Your task to perform on an android device: Open wifi settings Image 0: 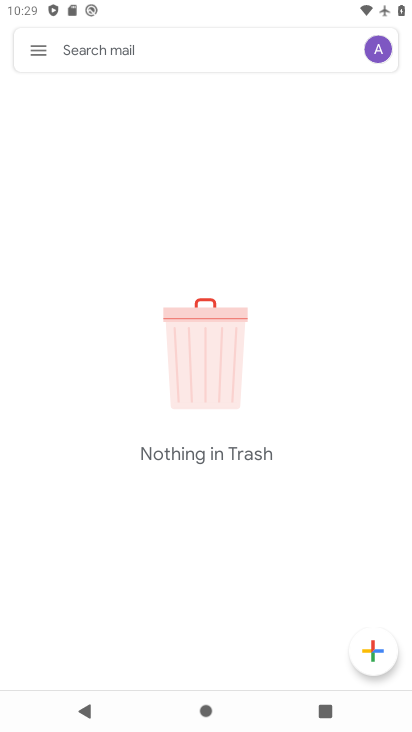
Step 0: press home button
Your task to perform on an android device: Open wifi settings Image 1: 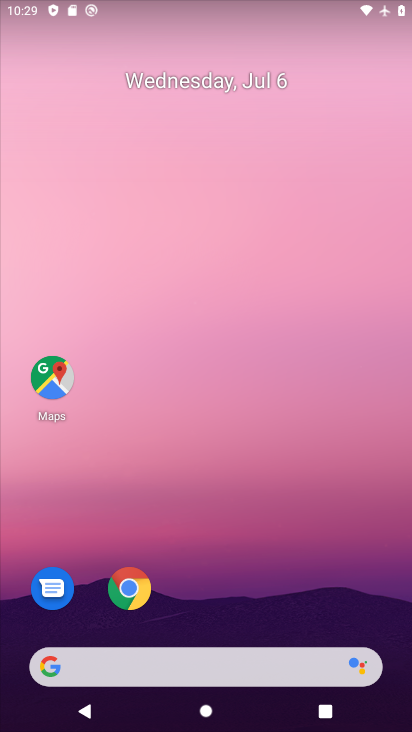
Step 1: drag from (169, 657) to (265, 0)
Your task to perform on an android device: Open wifi settings Image 2: 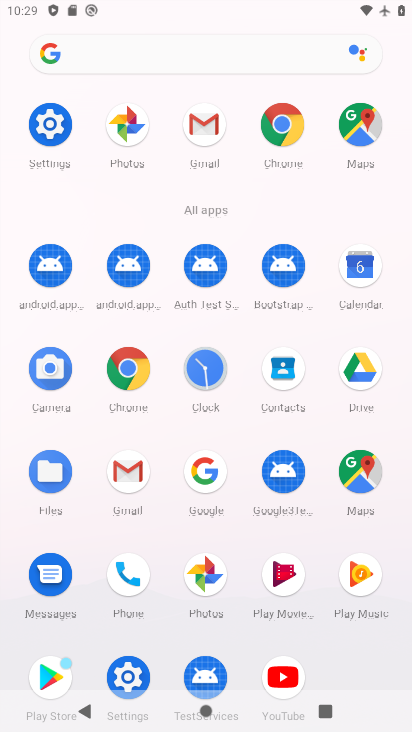
Step 2: click (50, 133)
Your task to perform on an android device: Open wifi settings Image 3: 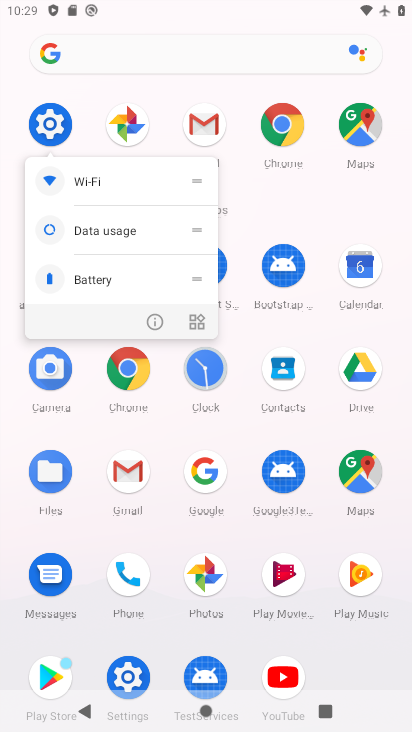
Step 3: click (55, 126)
Your task to perform on an android device: Open wifi settings Image 4: 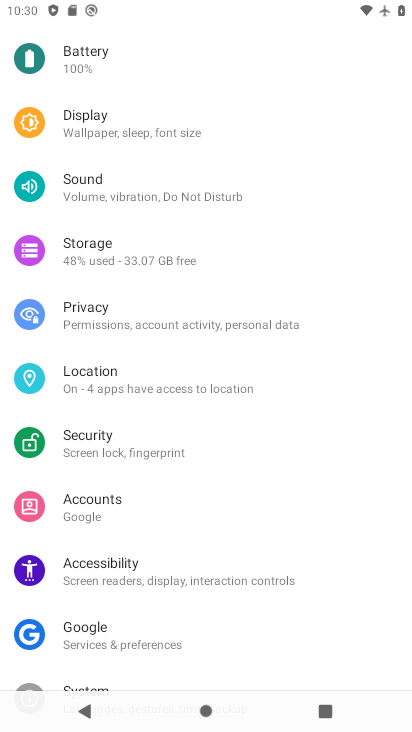
Step 4: drag from (268, 79) to (200, 556)
Your task to perform on an android device: Open wifi settings Image 5: 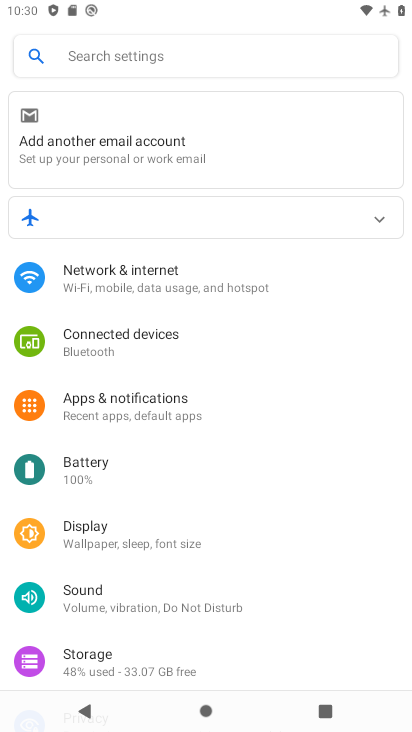
Step 5: click (157, 284)
Your task to perform on an android device: Open wifi settings Image 6: 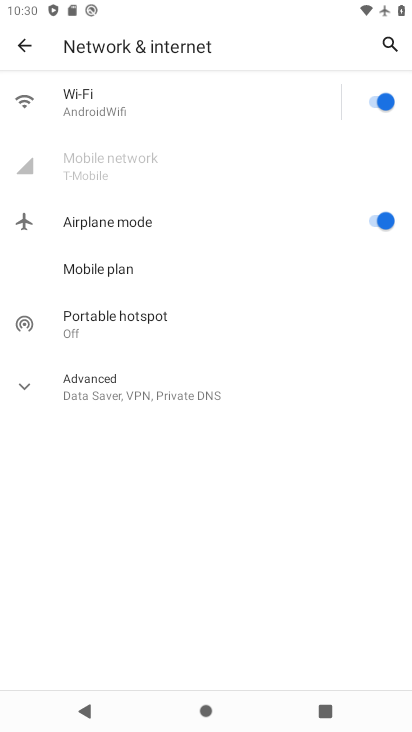
Step 6: click (137, 107)
Your task to perform on an android device: Open wifi settings Image 7: 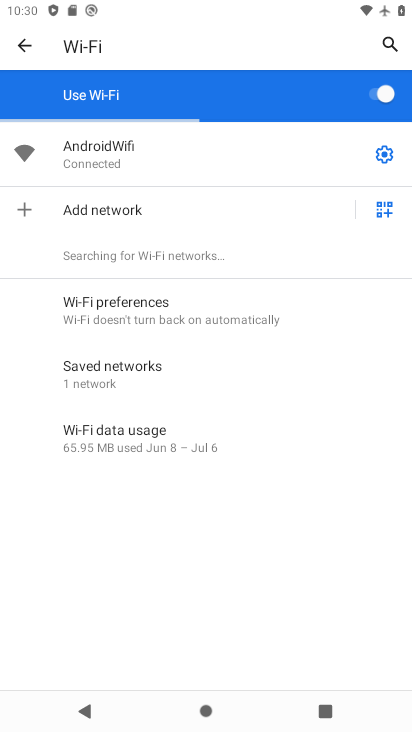
Step 7: task complete